Your task to perform on an android device: turn on priority inbox in the gmail app Image 0: 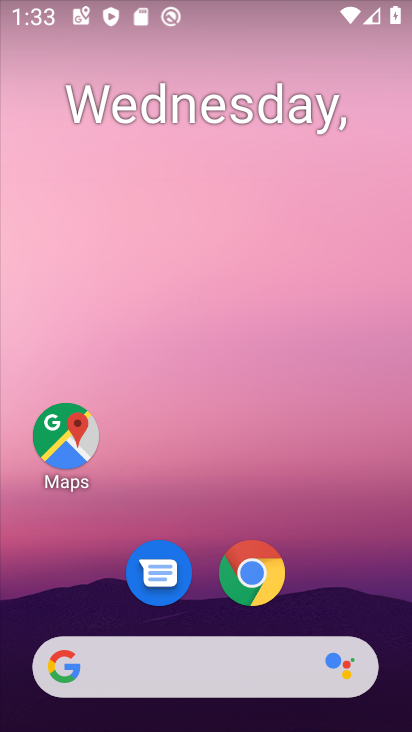
Step 0: drag from (206, 590) to (228, 95)
Your task to perform on an android device: turn on priority inbox in the gmail app Image 1: 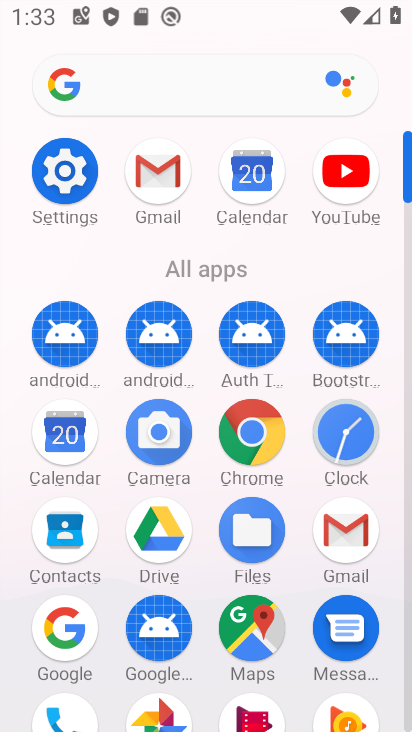
Step 1: click (160, 179)
Your task to perform on an android device: turn on priority inbox in the gmail app Image 2: 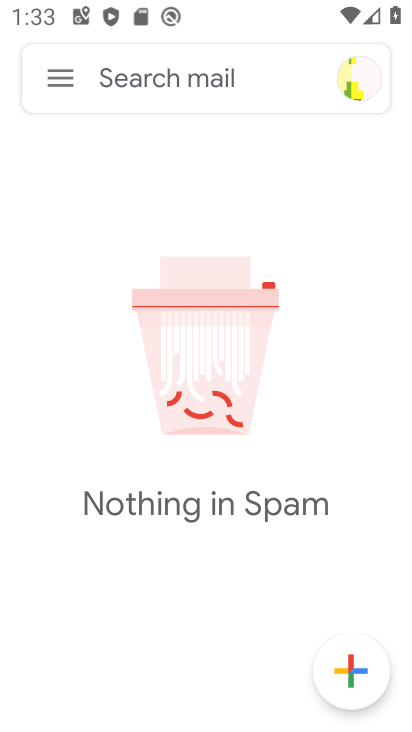
Step 2: click (54, 88)
Your task to perform on an android device: turn on priority inbox in the gmail app Image 3: 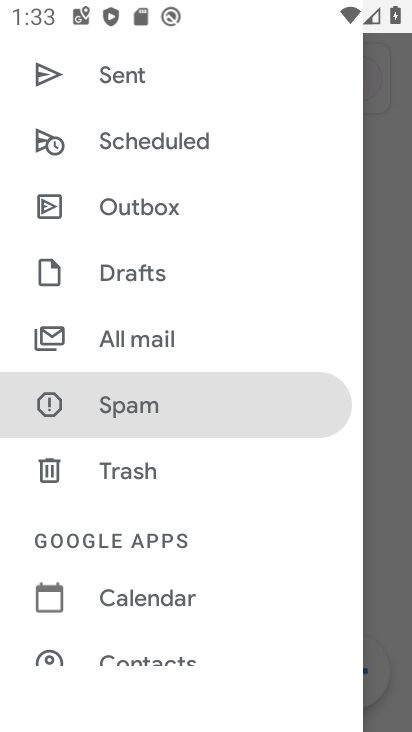
Step 3: drag from (309, 520) to (270, 199)
Your task to perform on an android device: turn on priority inbox in the gmail app Image 4: 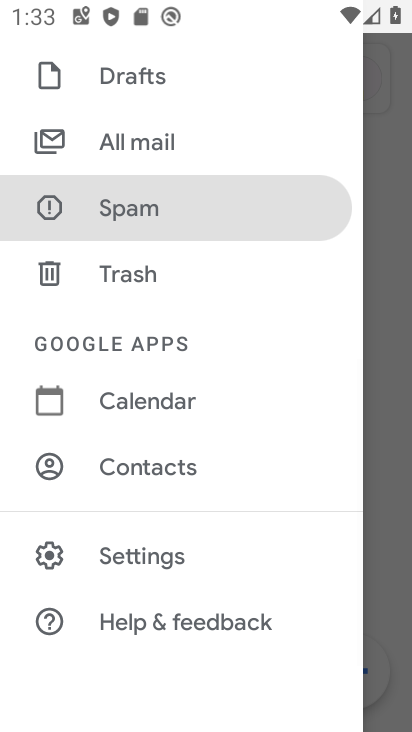
Step 4: click (172, 557)
Your task to perform on an android device: turn on priority inbox in the gmail app Image 5: 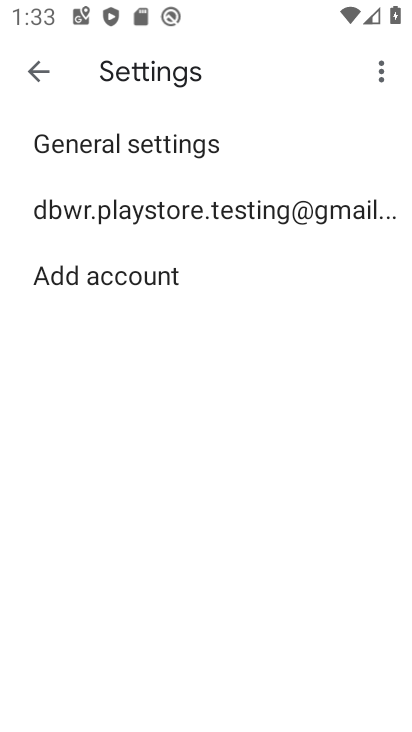
Step 5: click (175, 205)
Your task to perform on an android device: turn on priority inbox in the gmail app Image 6: 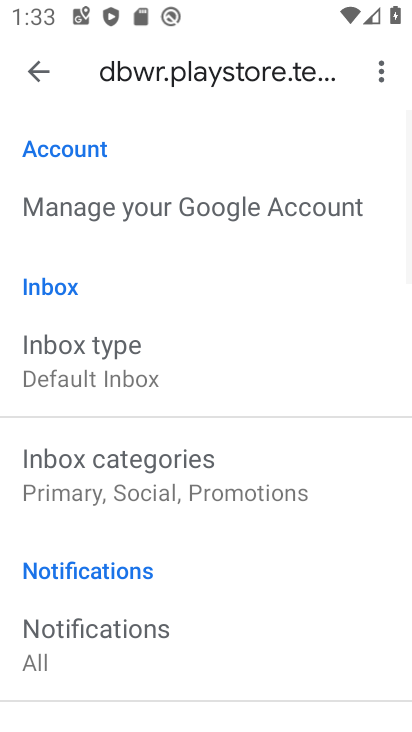
Step 6: drag from (222, 544) to (235, 422)
Your task to perform on an android device: turn on priority inbox in the gmail app Image 7: 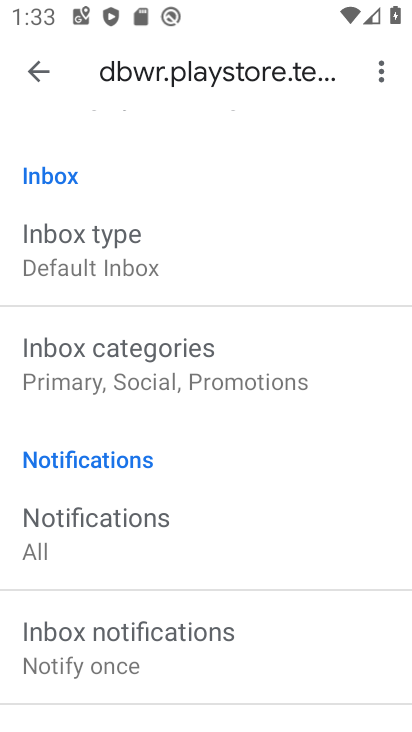
Step 7: click (148, 262)
Your task to perform on an android device: turn on priority inbox in the gmail app Image 8: 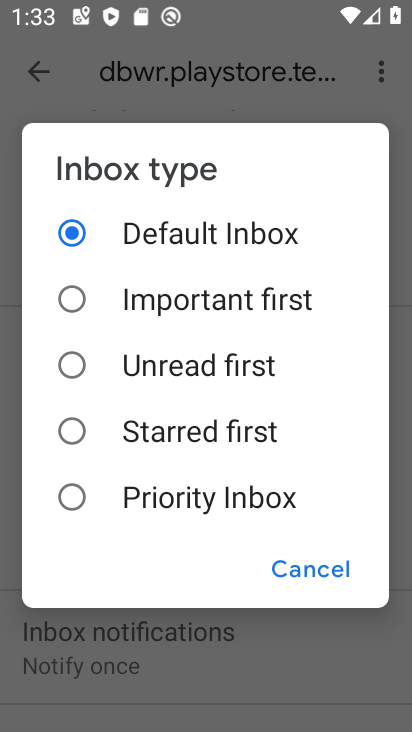
Step 8: click (75, 497)
Your task to perform on an android device: turn on priority inbox in the gmail app Image 9: 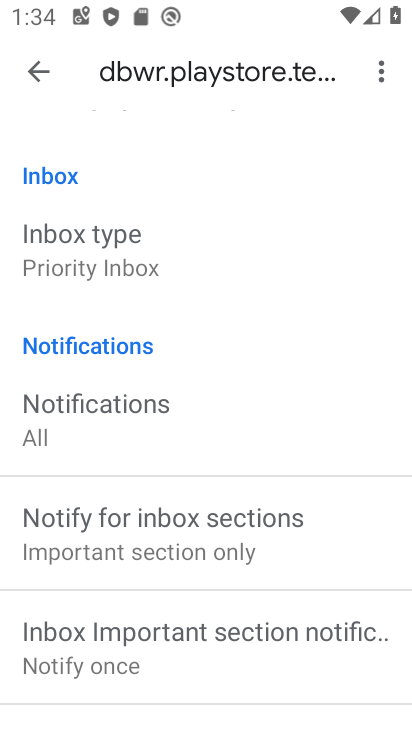
Step 9: task complete